Your task to perform on an android device: turn notification dots on Image 0: 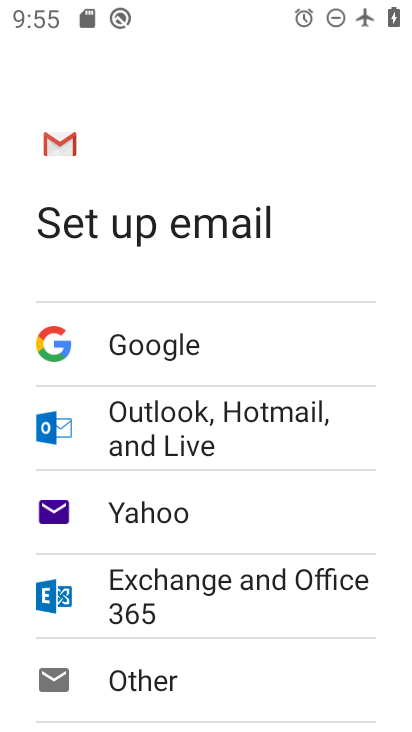
Step 0: press home button
Your task to perform on an android device: turn notification dots on Image 1: 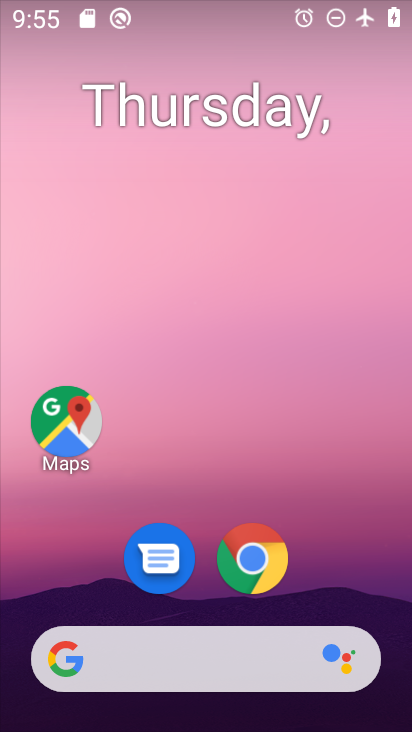
Step 1: drag from (344, 595) to (298, 117)
Your task to perform on an android device: turn notification dots on Image 2: 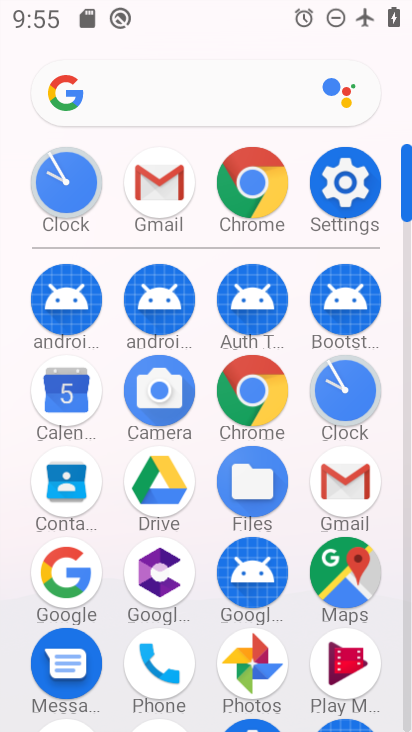
Step 2: click (409, 691)
Your task to perform on an android device: turn notification dots on Image 3: 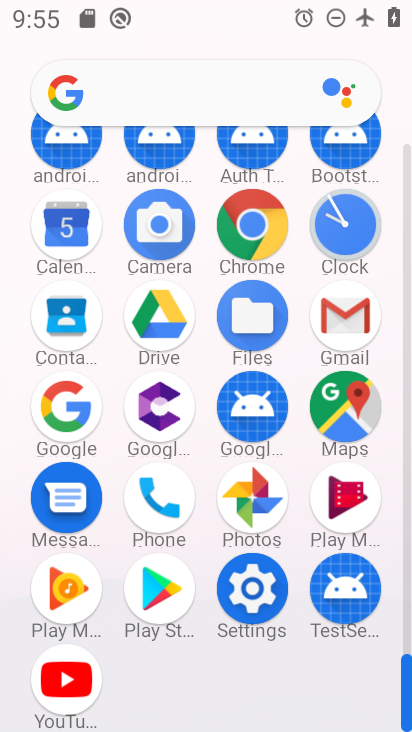
Step 3: click (248, 585)
Your task to perform on an android device: turn notification dots on Image 4: 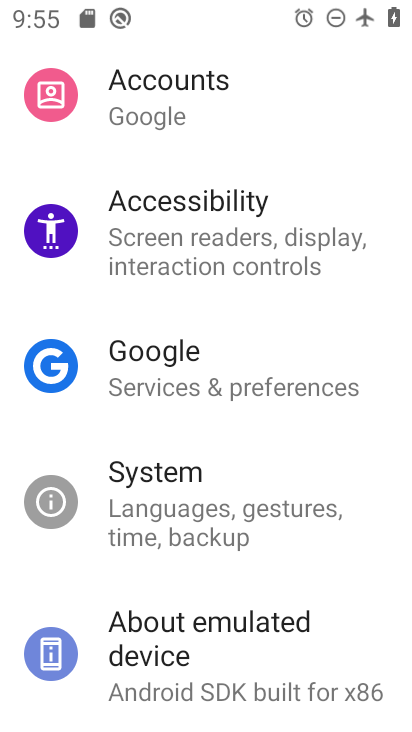
Step 4: drag from (346, 167) to (331, 555)
Your task to perform on an android device: turn notification dots on Image 5: 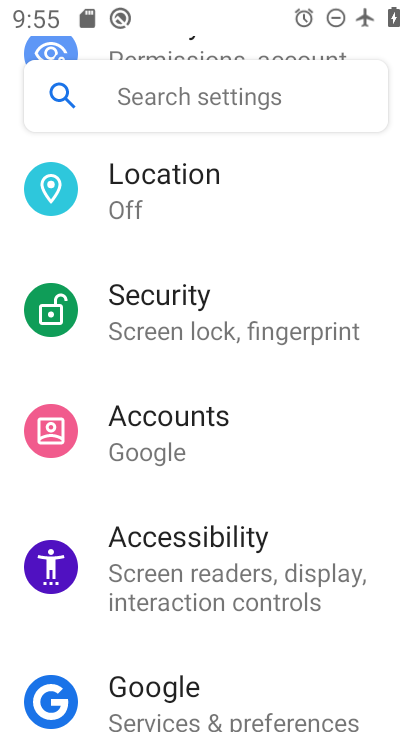
Step 5: drag from (347, 208) to (304, 570)
Your task to perform on an android device: turn notification dots on Image 6: 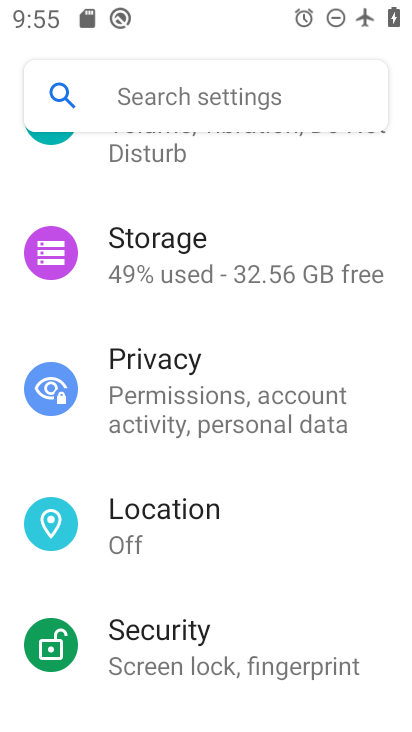
Step 6: drag from (314, 181) to (306, 506)
Your task to perform on an android device: turn notification dots on Image 7: 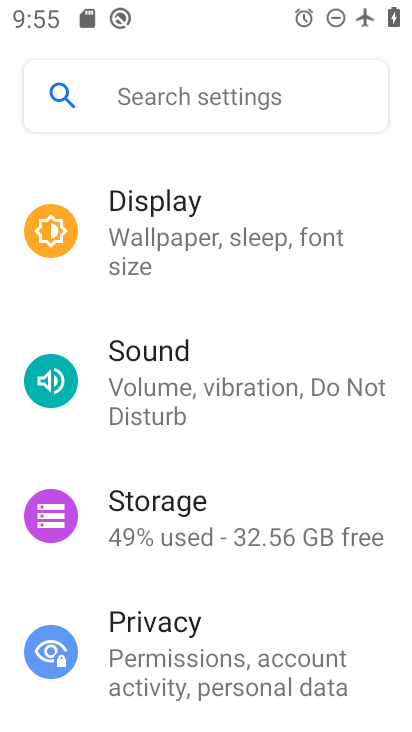
Step 7: drag from (316, 242) to (272, 527)
Your task to perform on an android device: turn notification dots on Image 8: 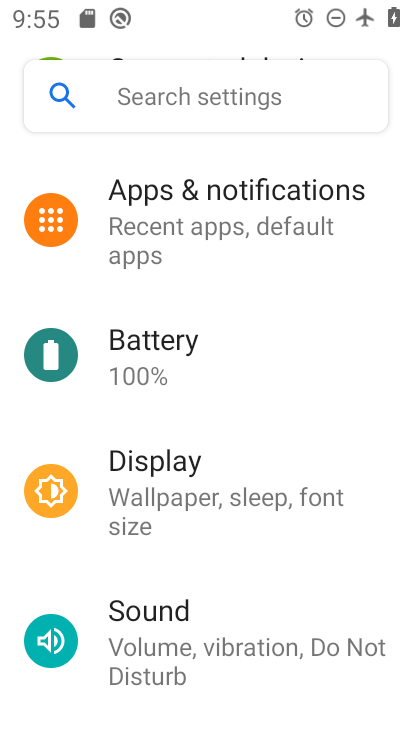
Step 8: click (176, 197)
Your task to perform on an android device: turn notification dots on Image 9: 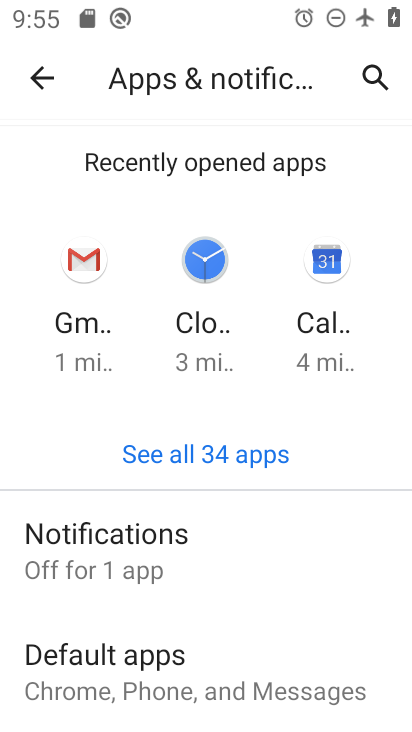
Step 9: drag from (96, 546) to (190, 225)
Your task to perform on an android device: turn notification dots on Image 10: 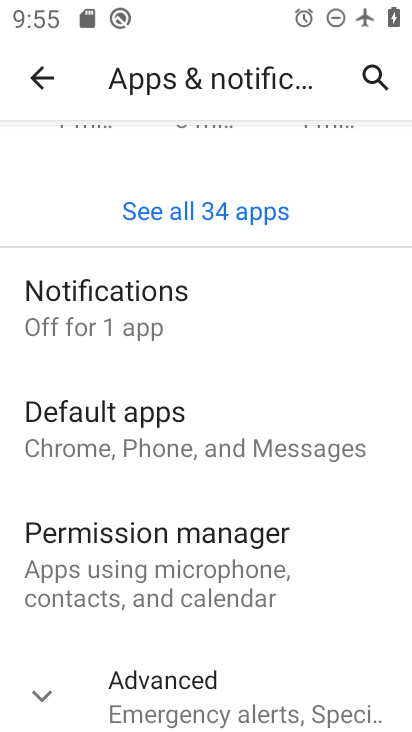
Step 10: click (112, 287)
Your task to perform on an android device: turn notification dots on Image 11: 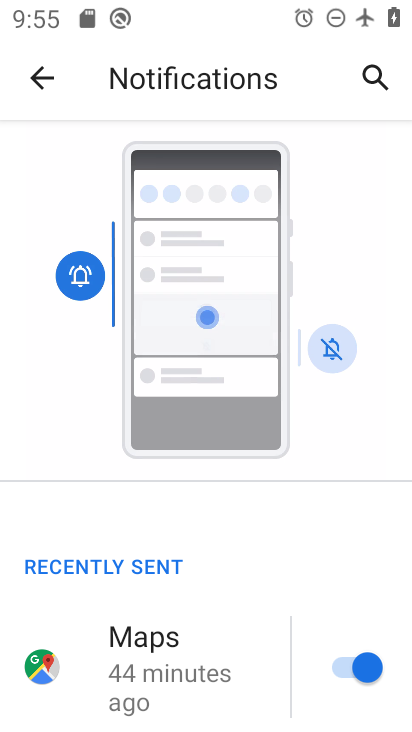
Step 11: drag from (291, 622) to (266, 164)
Your task to perform on an android device: turn notification dots on Image 12: 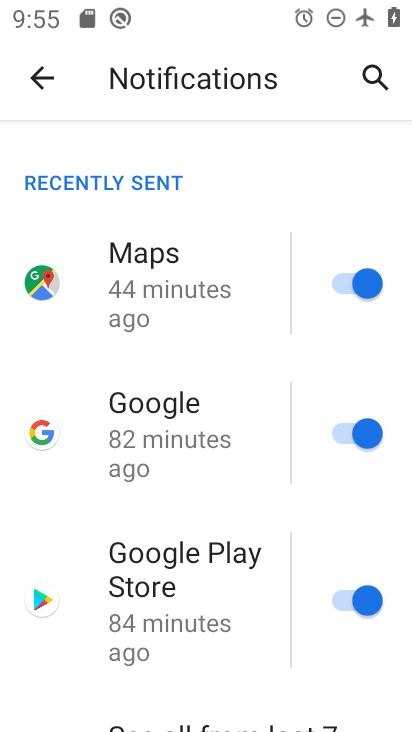
Step 12: drag from (289, 664) to (289, 147)
Your task to perform on an android device: turn notification dots on Image 13: 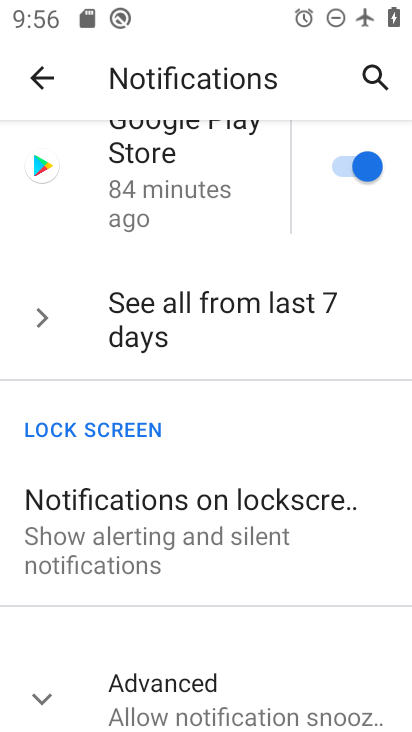
Step 13: click (27, 700)
Your task to perform on an android device: turn notification dots on Image 14: 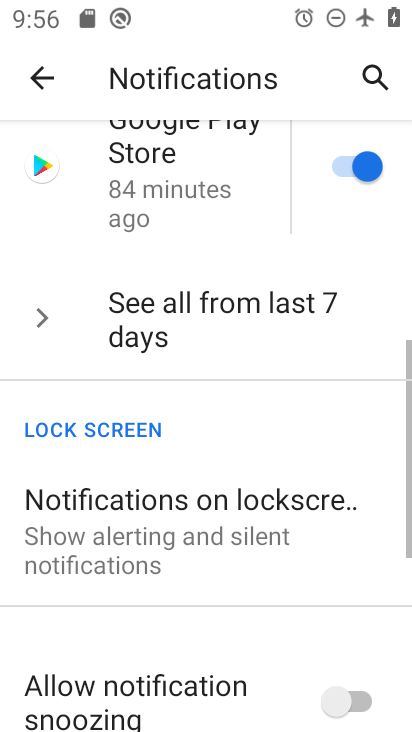
Step 14: task complete